Your task to perform on an android device: Open network settings Image 0: 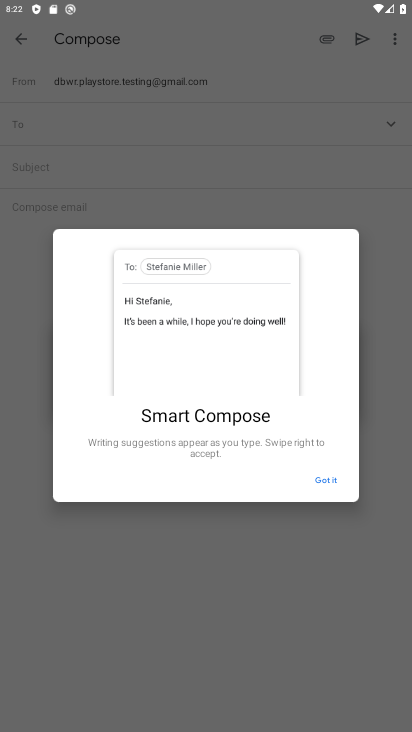
Step 0: press home button
Your task to perform on an android device: Open network settings Image 1: 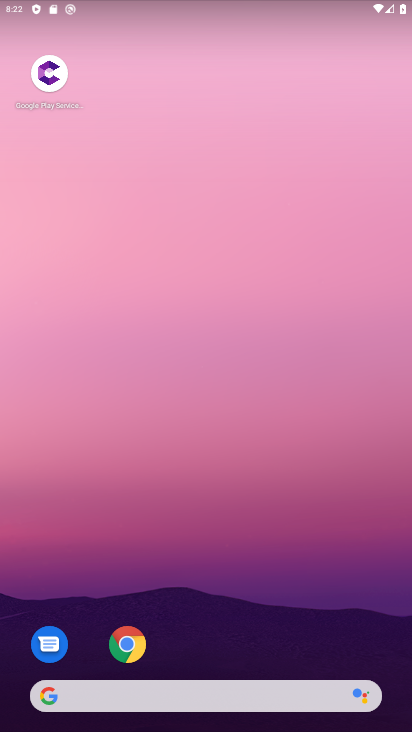
Step 1: drag from (220, 600) to (268, 49)
Your task to perform on an android device: Open network settings Image 2: 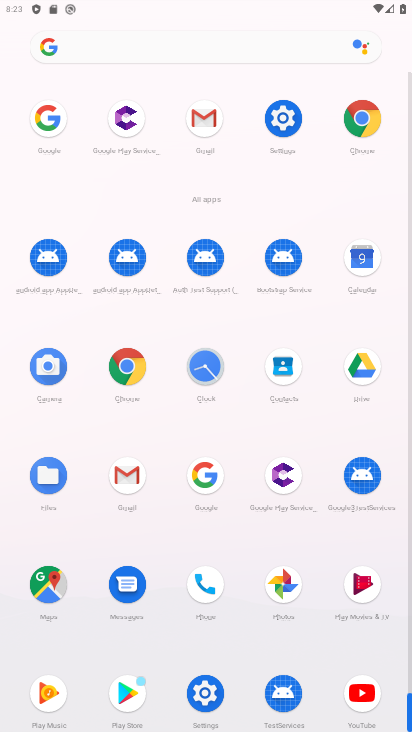
Step 2: click (288, 123)
Your task to perform on an android device: Open network settings Image 3: 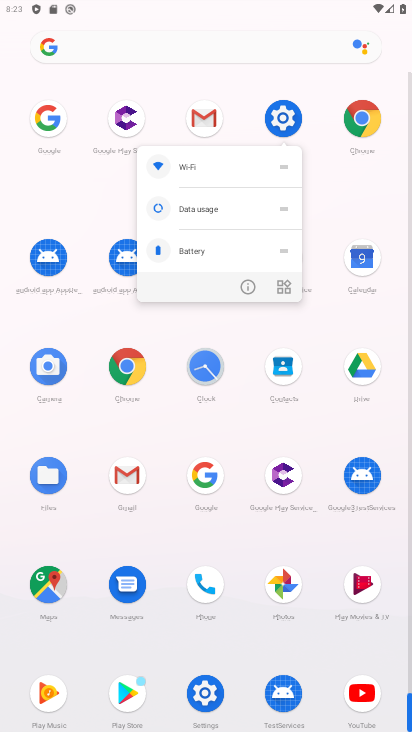
Step 3: click (287, 123)
Your task to perform on an android device: Open network settings Image 4: 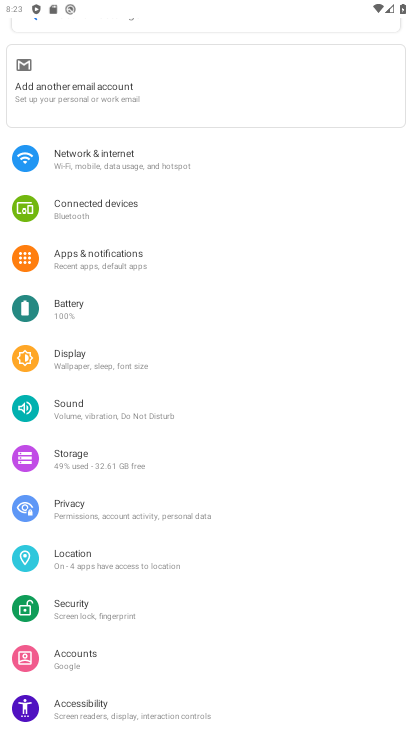
Step 4: click (77, 169)
Your task to perform on an android device: Open network settings Image 5: 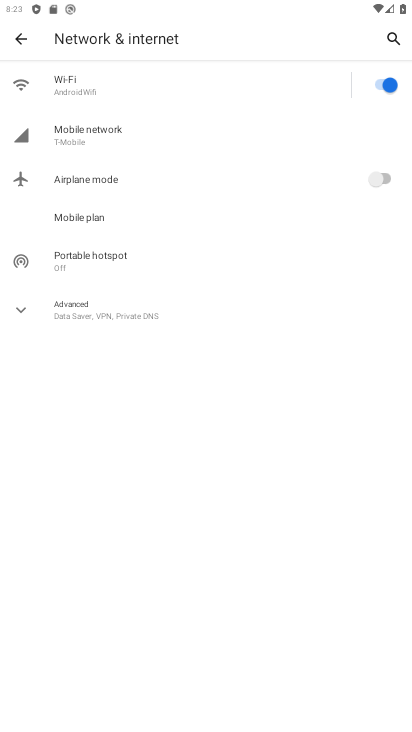
Step 5: click (89, 159)
Your task to perform on an android device: Open network settings Image 6: 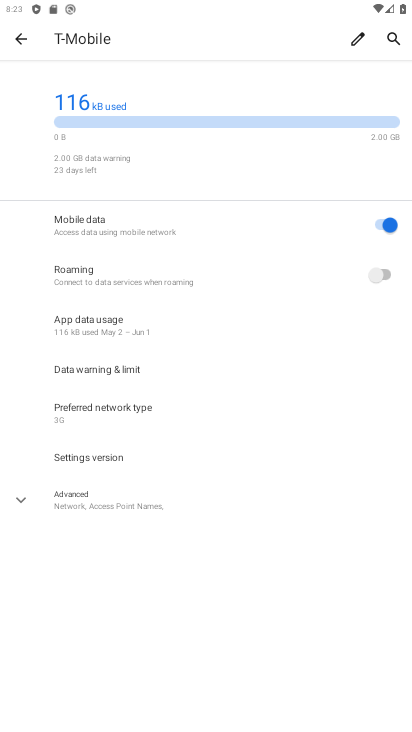
Step 6: task complete